Your task to perform on an android device: Go to Google maps Image 0: 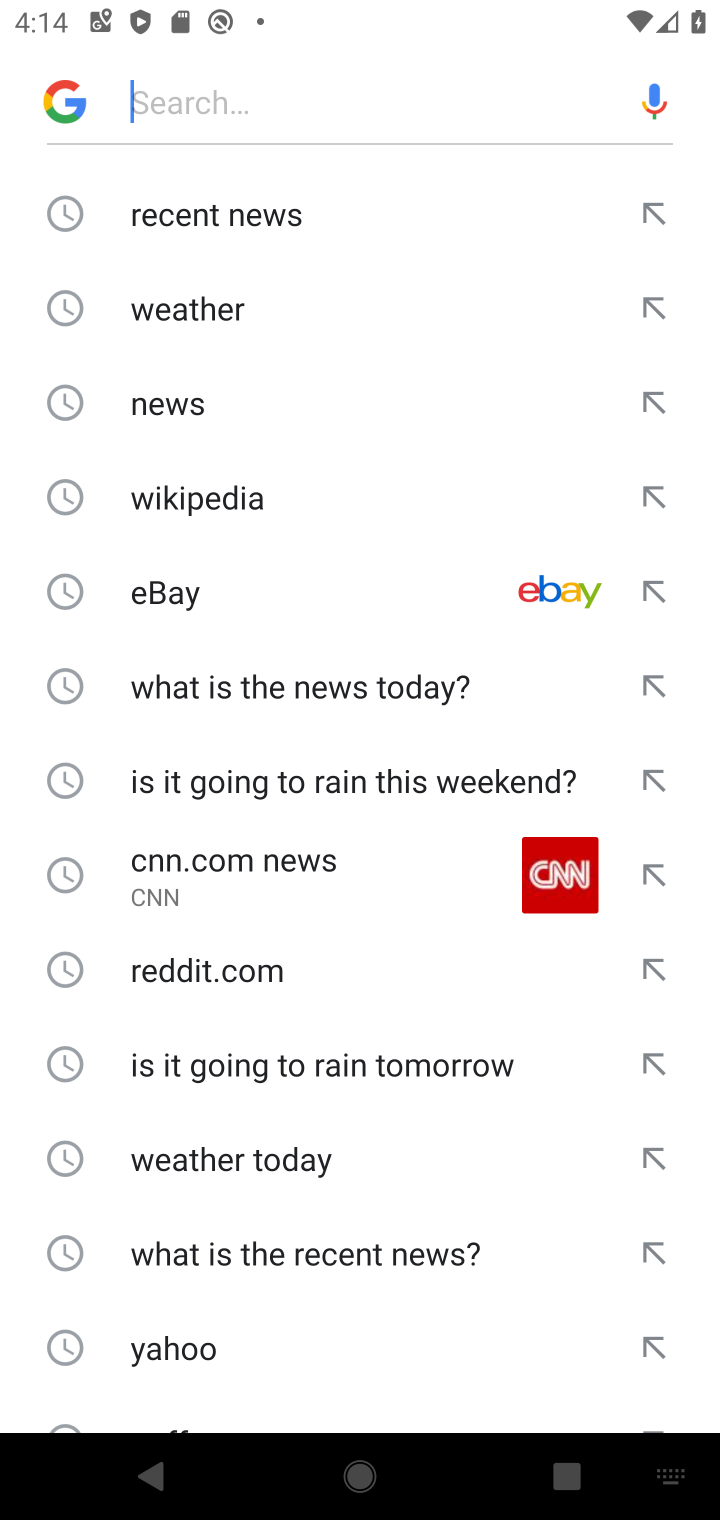
Step 0: press home button
Your task to perform on an android device: Go to Google maps Image 1: 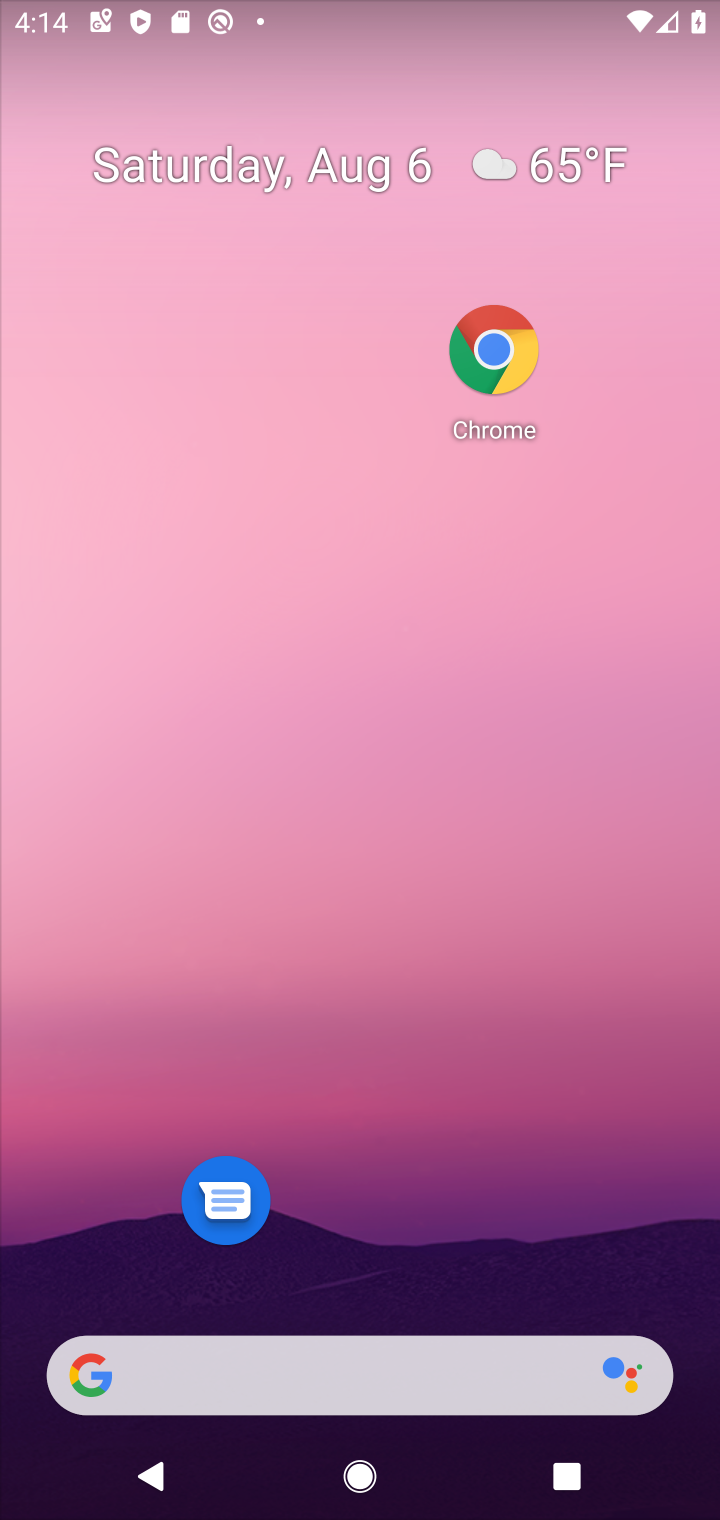
Step 1: drag from (286, 1233) to (191, 454)
Your task to perform on an android device: Go to Google maps Image 2: 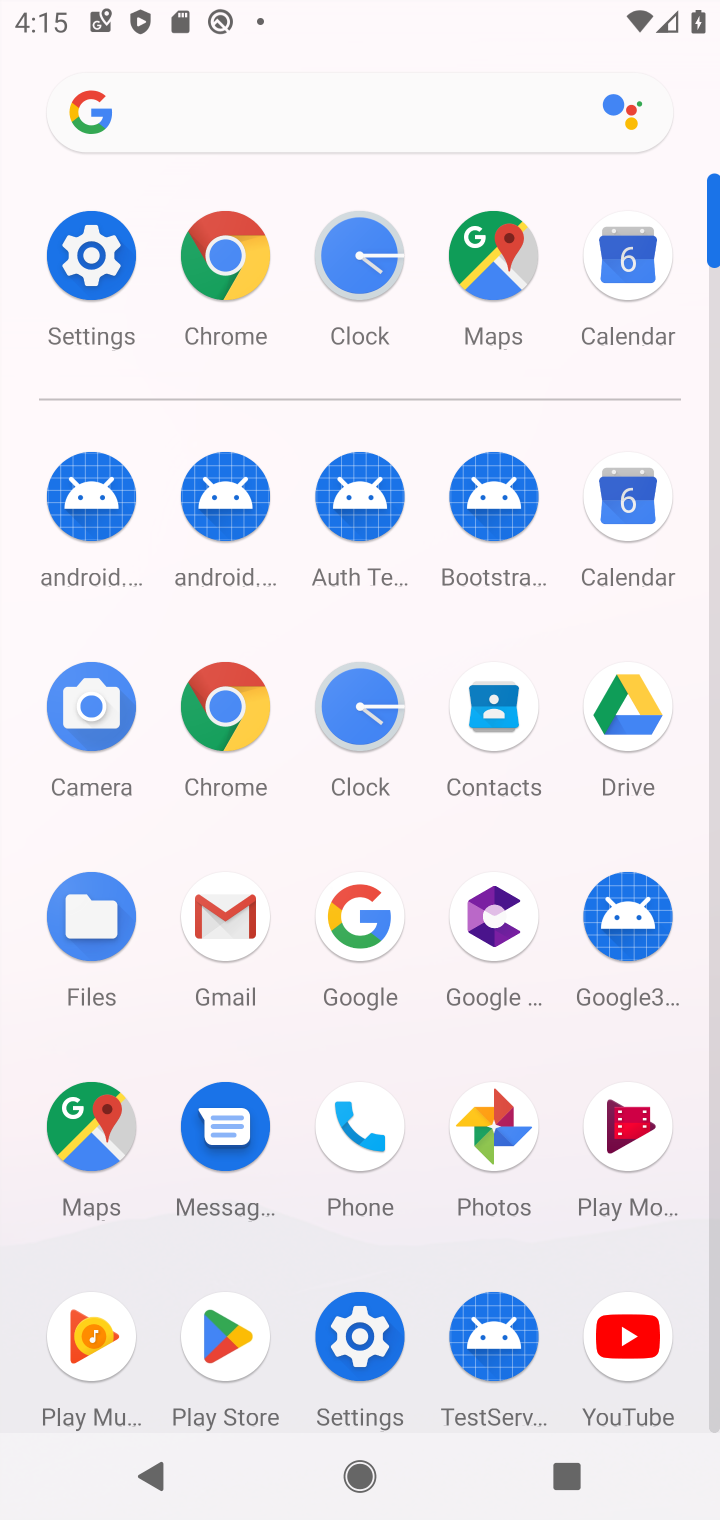
Step 2: click (87, 1143)
Your task to perform on an android device: Go to Google maps Image 3: 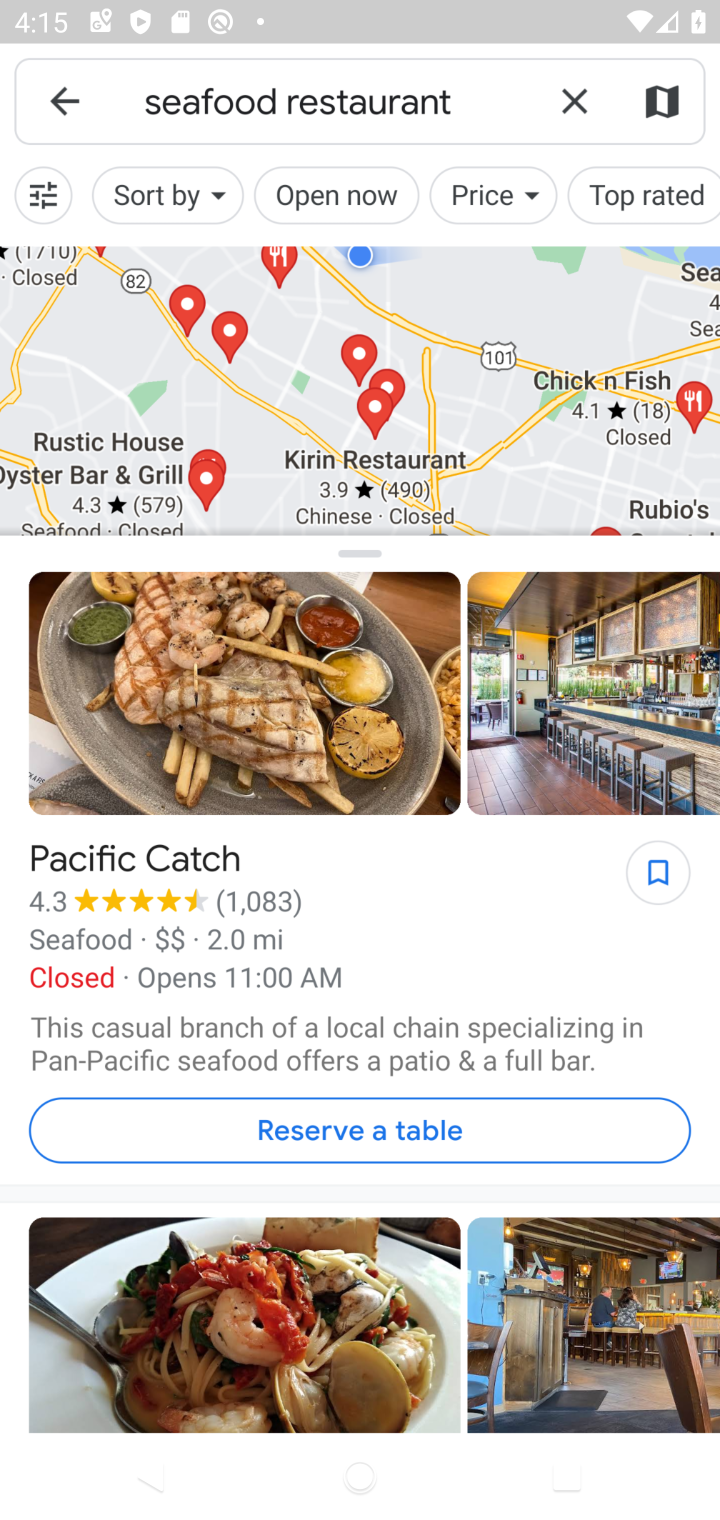
Step 3: click (581, 106)
Your task to perform on an android device: Go to Google maps Image 4: 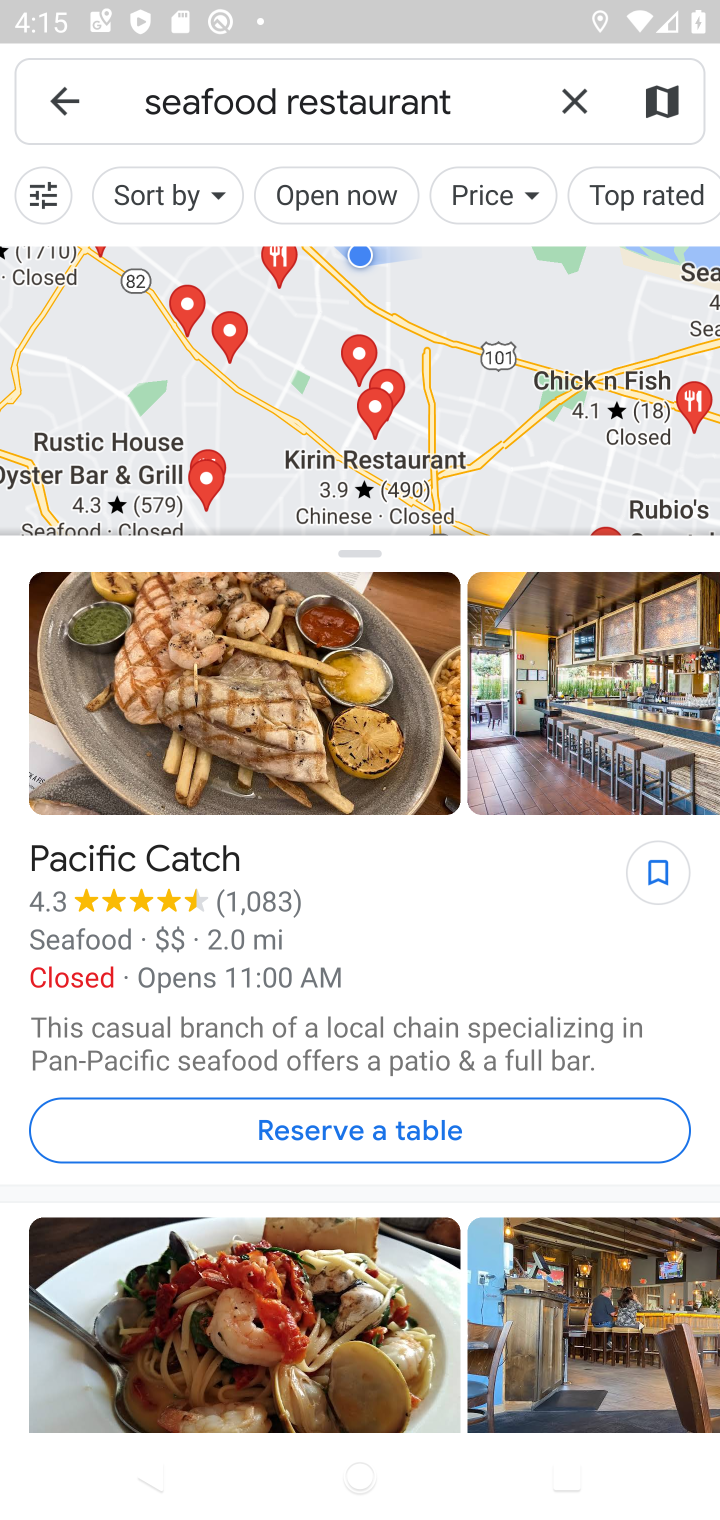
Step 4: click (570, 104)
Your task to perform on an android device: Go to Google maps Image 5: 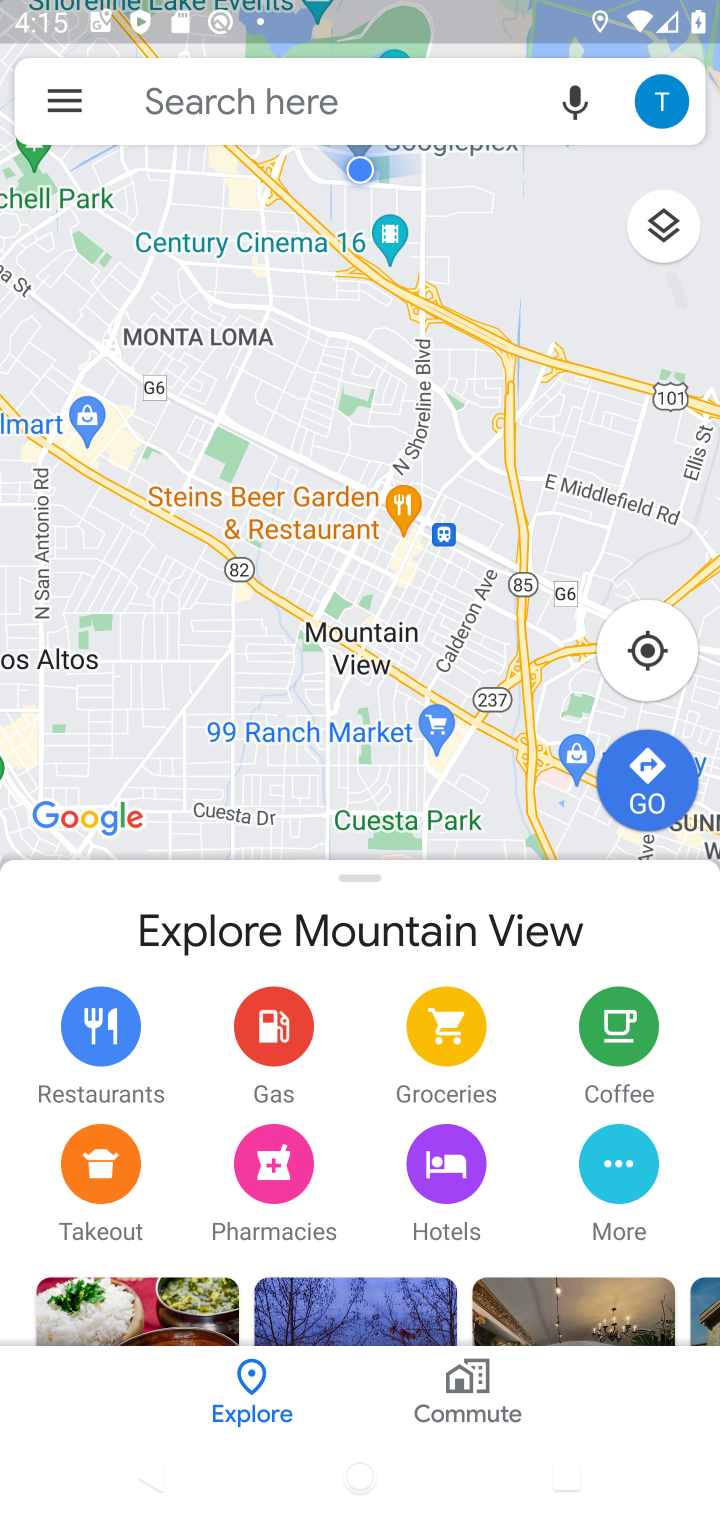
Step 5: task complete